Your task to perform on an android device: Set the phone to "Do not disturb". Image 0: 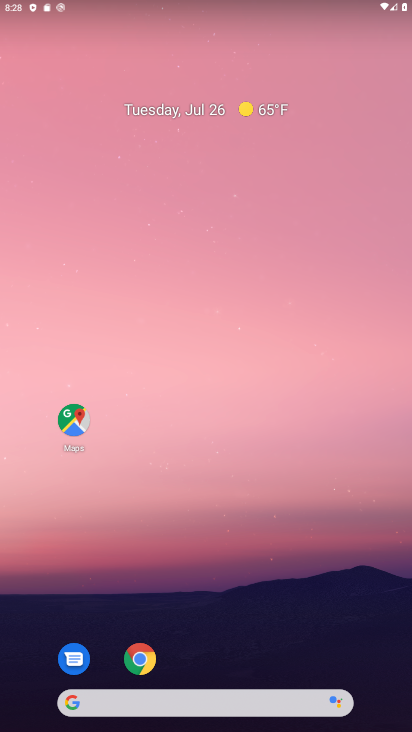
Step 0: drag from (207, 646) to (158, 11)
Your task to perform on an android device: Set the phone to "Do not disturb". Image 1: 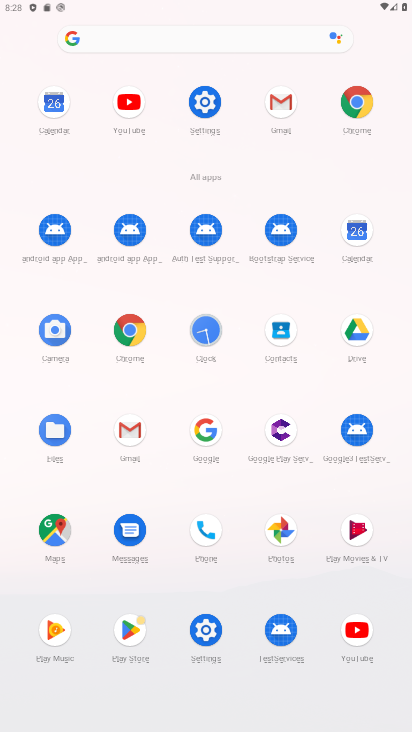
Step 1: click (203, 110)
Your task to perform on an android device: Set the phone to "Do not disturb". Image 2: 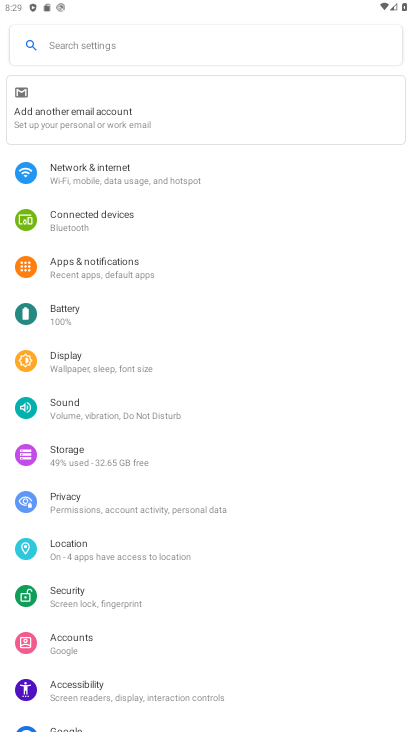
Step 2: click (72, 416)
Your task to perform on an android device: Set the phone to "Do not disturb". Image 3: 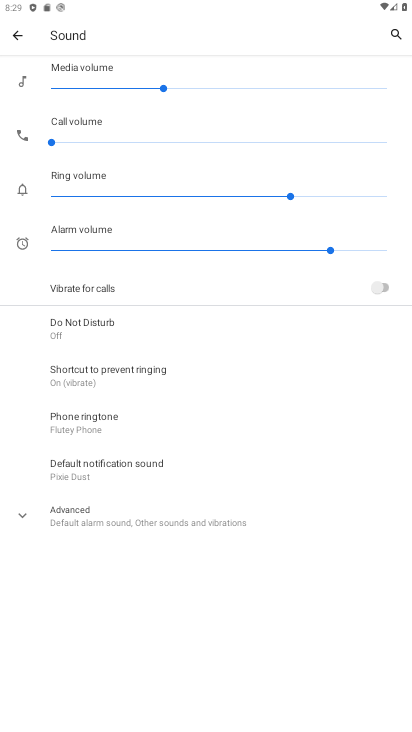
Step 3: click (85, 346)
Your task to perform on an android device: Set the phone to "Do not disturb". Image 4: 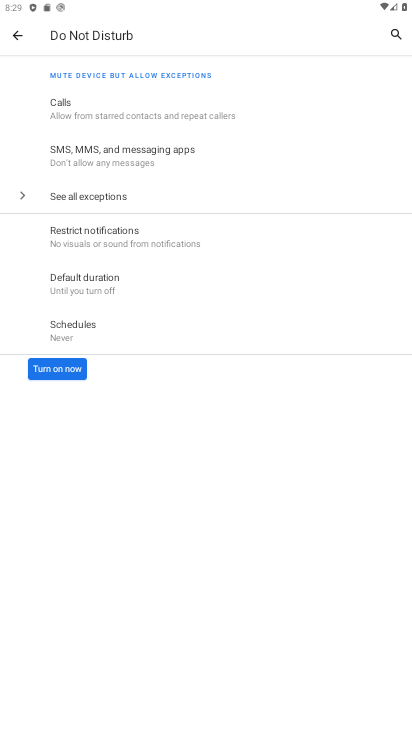
Step 4: click (50, 367)
Your task to perform on an android device: Set the phone to "Do not disturb". Image 5: 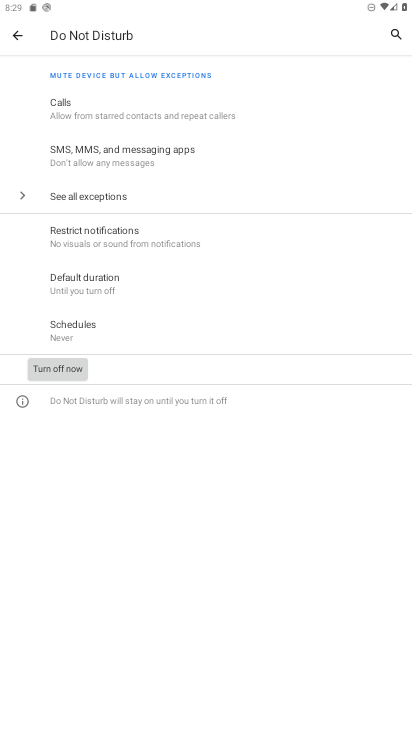
Step 5: task complete